Your task to perform on an android device: toggle wifi Image 0: 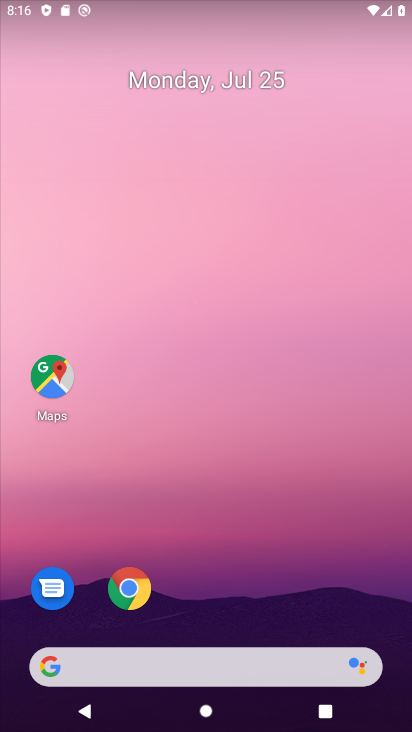
Step 0: press home button
Your task to perform on an android device: toggle wifi Image 1: 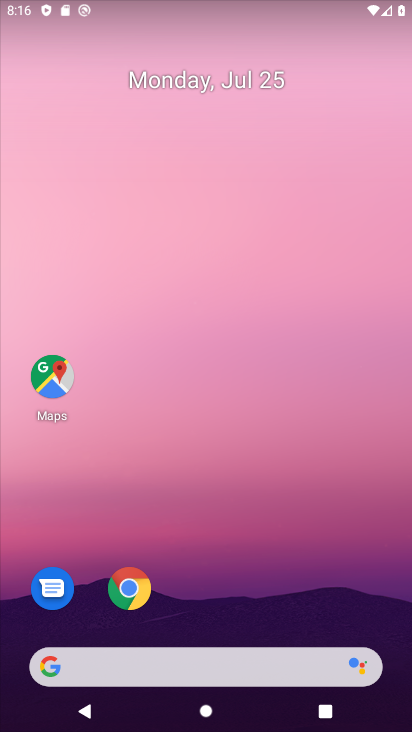
Step 1: drag from (347, 554) to (338, 131)
Your task to perform on an android device: toggle wifi Image 2: 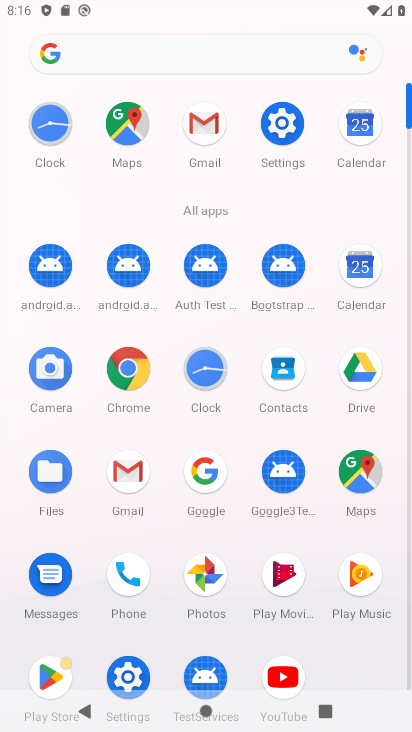
Step 2: click (282, 124)
Your task to perform on an android device: toggle wifi Image 3: 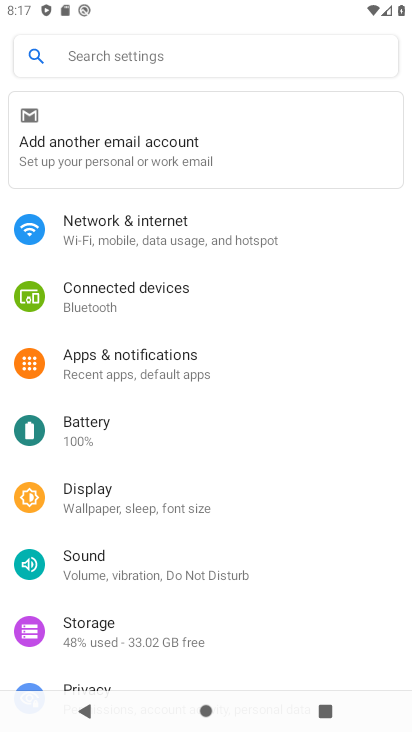
Step 3: click (341, 336)
Your task to perform on an android device: toggle wifi Image 4: 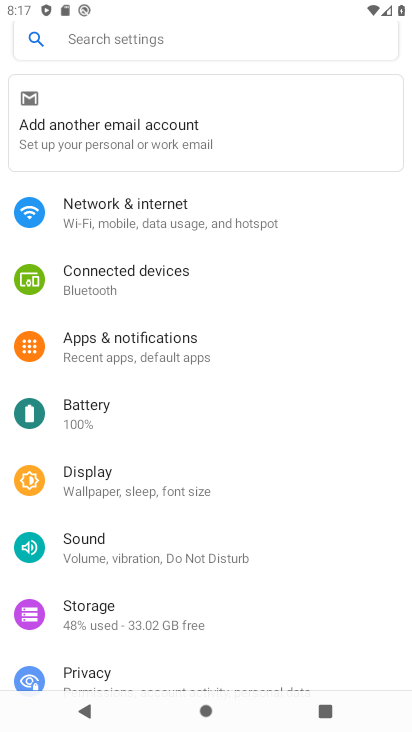
Step 4: drag from (355, 467) to (343, 366)
Your task to perform on an android device: toggle wifi Image 5: 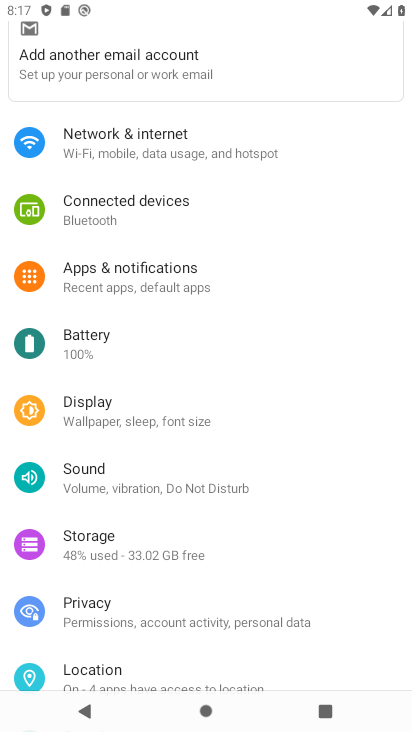
Step 5: drag from (345, 479) to (338, 384)
Your task to perform on an android device: toggle wifi Image 6: 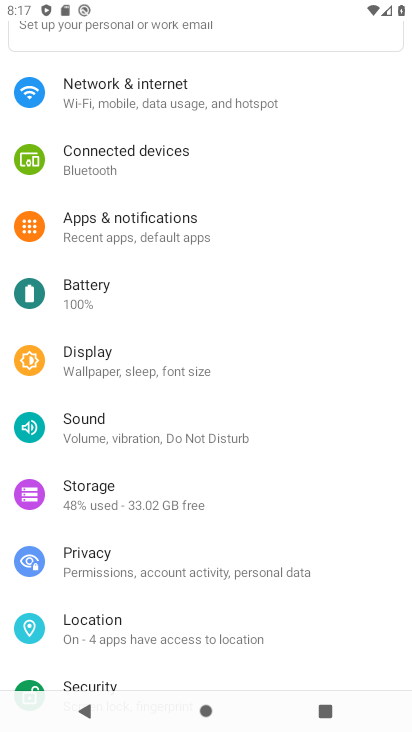
Step 6: drag from (347, 514) to (341, 414)
Your task to perform on an android device: toggle wifi Image 7: 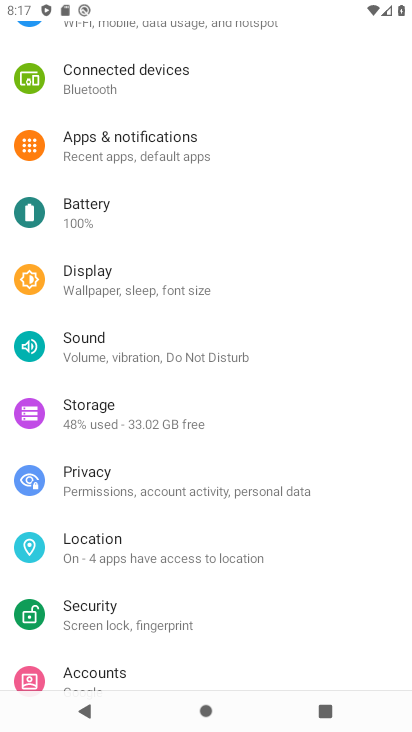
Step 7: drag from (351, 539) to (351, 426)
Your task to perform on an android device: toggle wifi Image 8: 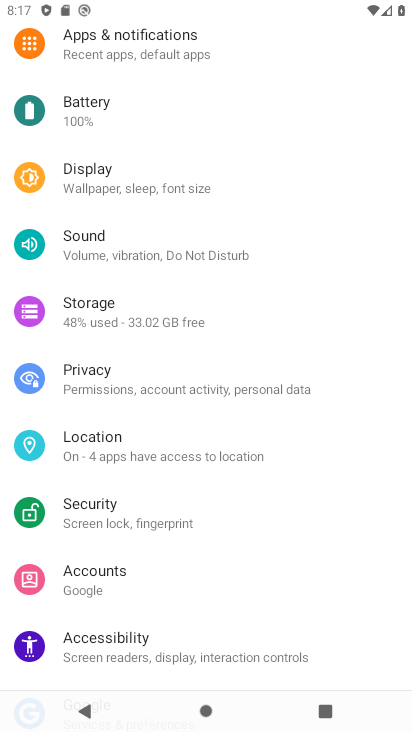
Step 8: drag from (351, 573) to (356, 471)
Your task to perform on an android device: toggle wifi Image 9: 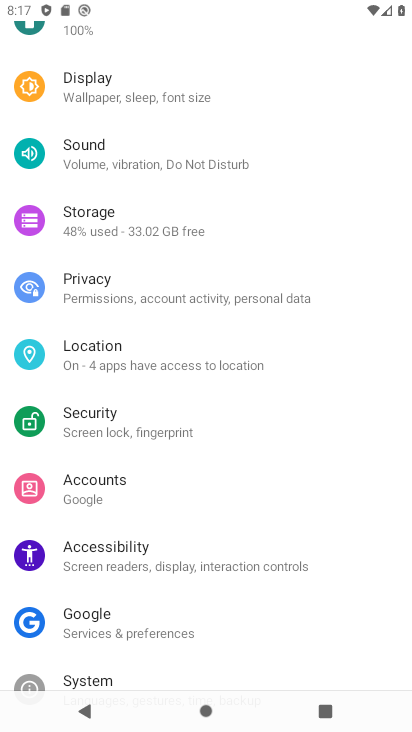
Step 9: drag from (347, 585) to (361, 419)
Your task to perform on an android device: toggle wifi Image 10: 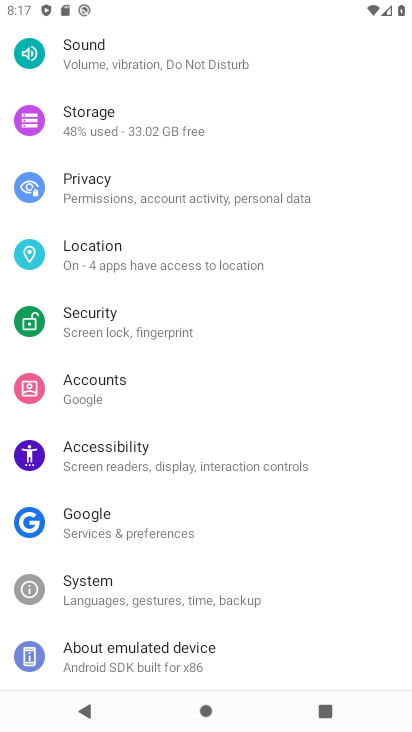
Step 10: drag from (364, 312) to (370, 393)
Your task to perform on an android device: toggle wifi Image 11: 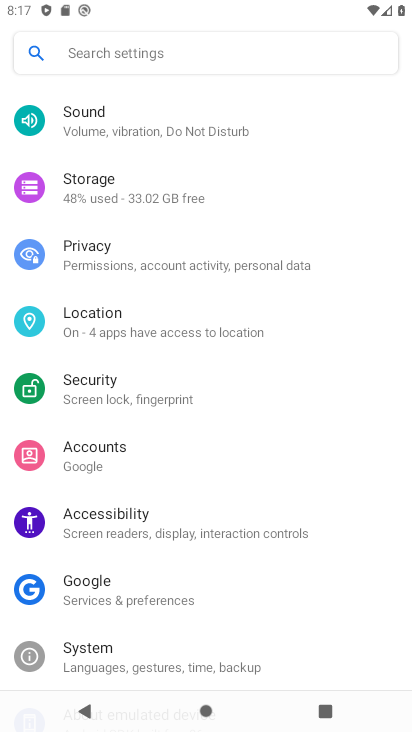
Step 11: drag from (358, 313) to (356, 405)
Your task to perform on an android device: toggle wifi Image 12: 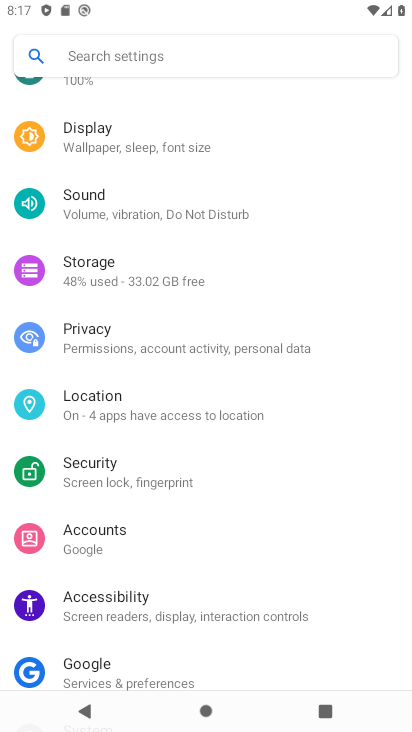
Step 12: drag from (356, 284) to (356, 386)
Your task to perform on an android device: toggle wifi Image 13: 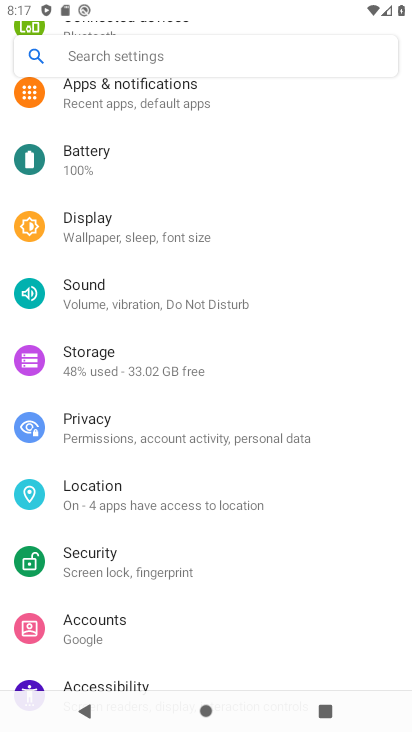
Step 13: drag from (358, 271) to (362, 372)
Your task to perform on an android device: toggle wifi Image 14: 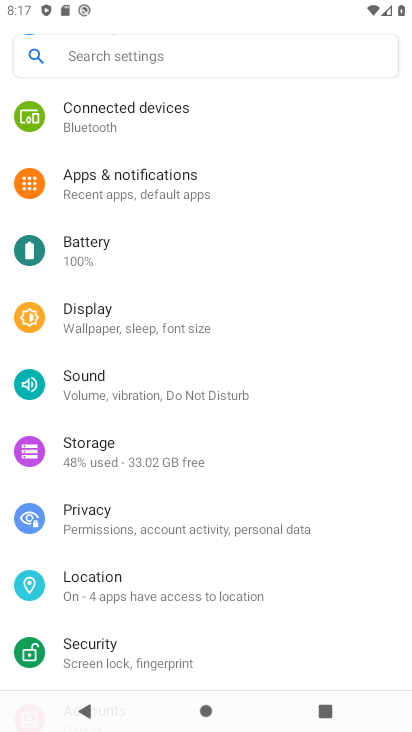
Step 14: drag from (351, 235) to (354, 348)
Your task to perform on an android device: toggle wifi Image 15: 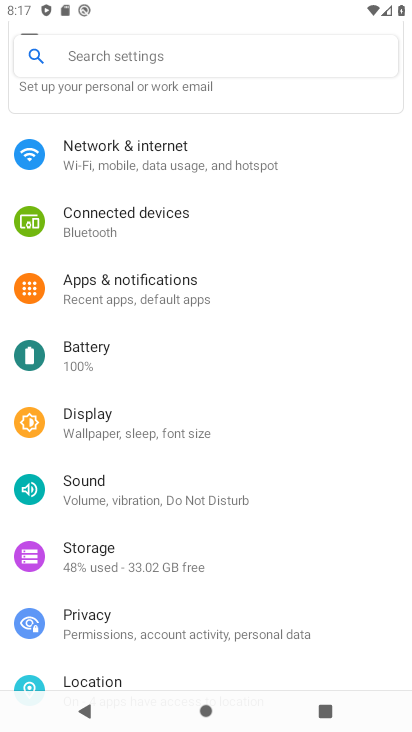
Step 15: drag from (331, 201) to (332, 383)
Your task to perform on an android device: toggle wifi Image 16: 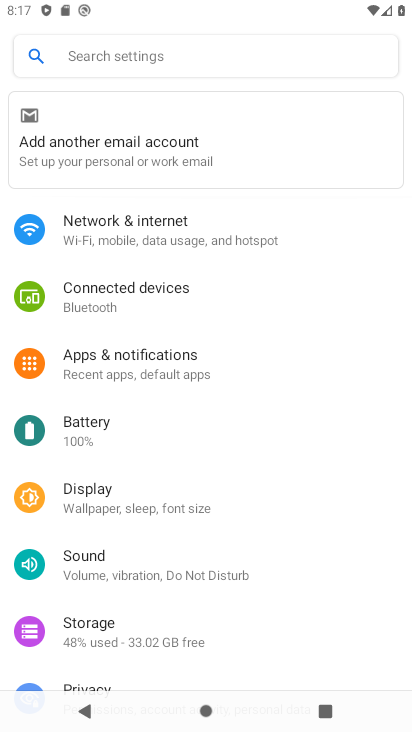
Step 16: click (283, 230)
Your task to perform on an android device: toggle wifi Image 17: 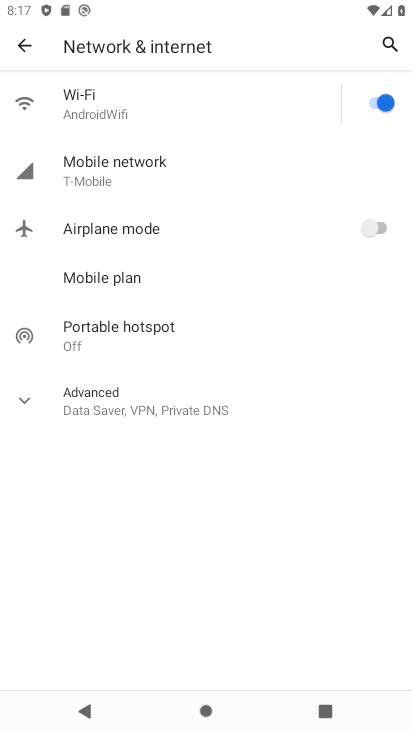
Step 17: click (373, 101)
Your task to perform on an android device: toggle wifi Image 18: 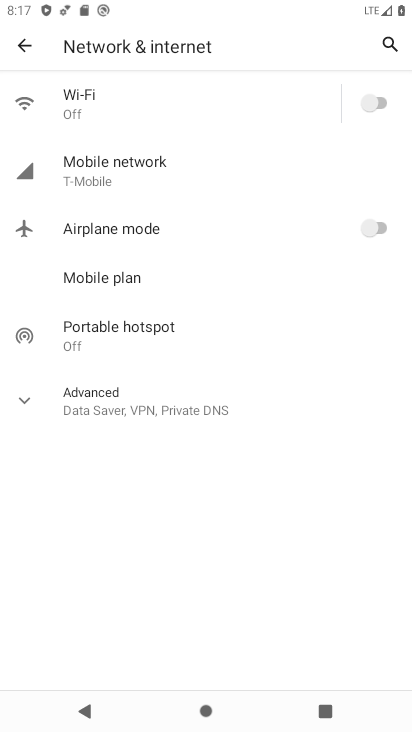
Step 18: task complete